Your task to perform on an android device: Open internet settings Image 0: 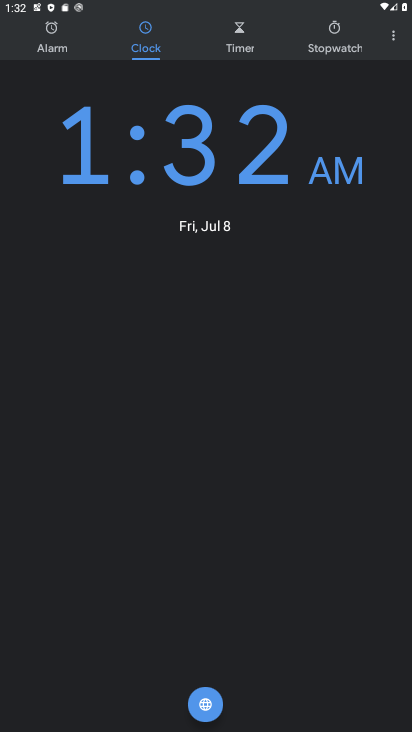
Step 0: press home button
Your task to perform on an android device: Open internet settings Image 1: 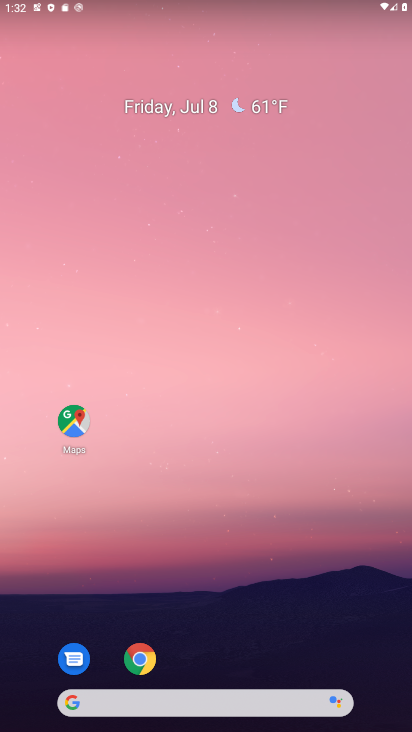
Step 1: drag from (237, 671) to (168, 208)
Your task to perform on an android device: Open internet settings Image 2: 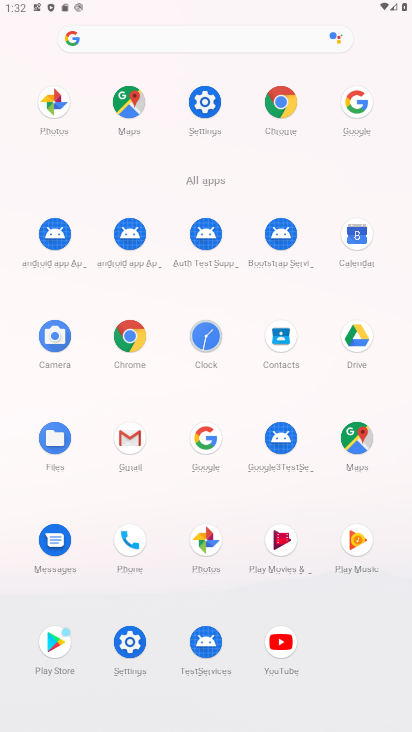
Step 2: click (216, 111)
Your task to perform on an android device: Open internet settings Image 3: 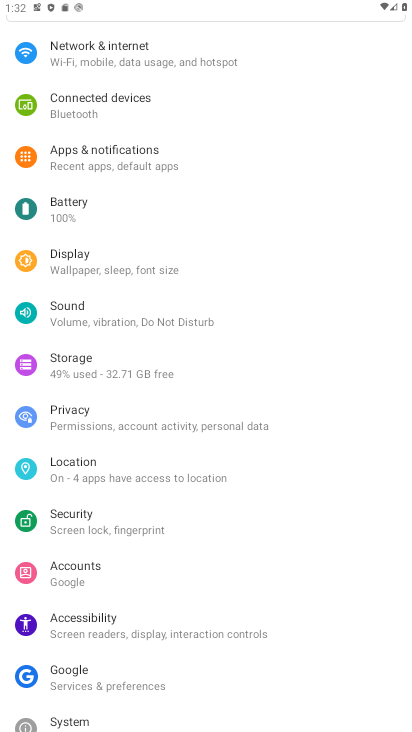
Step 3: click (145, 51)
Your task to perform on an android device: Open internet settings Image 4: 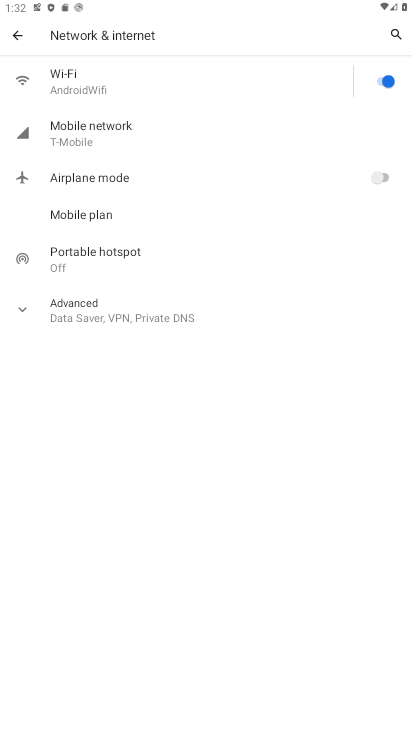
Step 4: click (144, 134)
Your task to perform on an android device: Open internet settings Image 5: 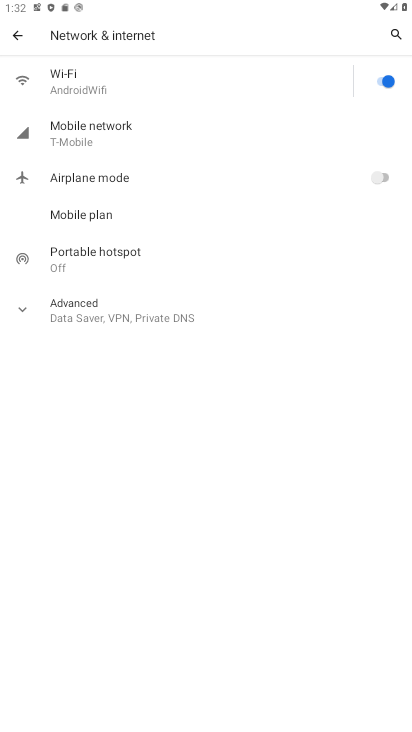
Step 5: task complete